Your task to perform on an android device: What's on my calendar for the rest of the month? Image 0: 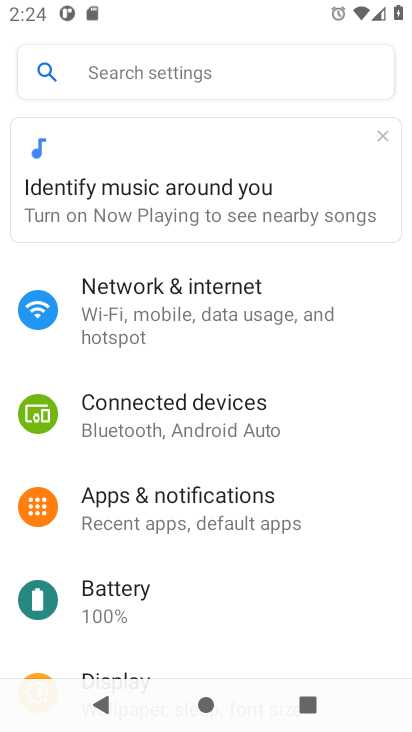
Step 0: press home button
Your task to perform on an android device: What's on my calendar for the rest of the month? Image 1: 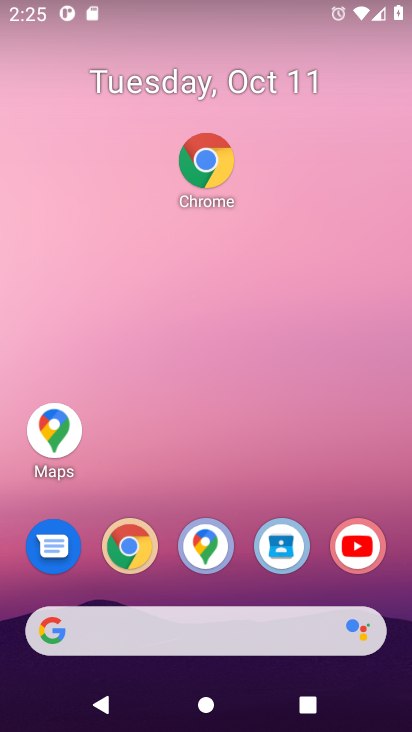
Step 1: drag from (166, 621) to (203, 277)
Your task to perform on an android device: What's on my calendar for the rest of the month? Image 2: 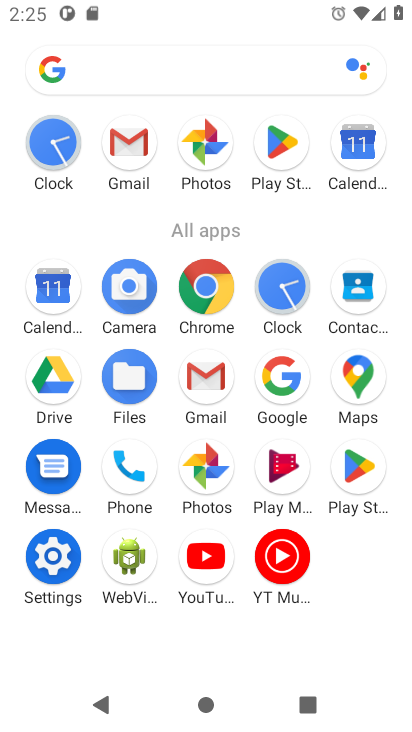
Step 2: click (45, 297)
Your task to perform on an android device: What's on my calendar for the rest of the month? Image 3: 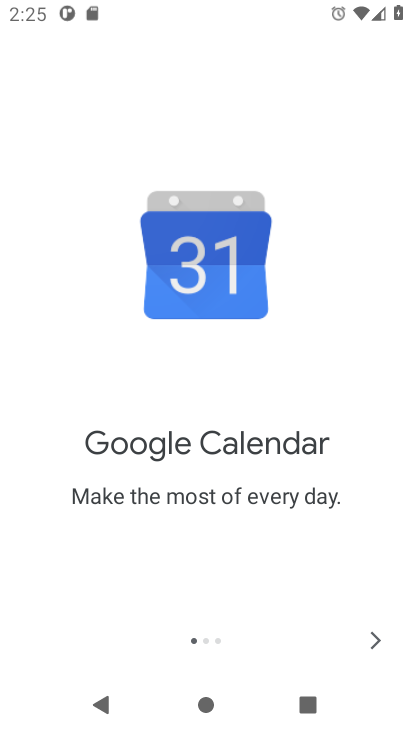
Step 3: click (374, 643)
Your task to perform on an android device: What's on my calendar for the rest of the month? Image 4: 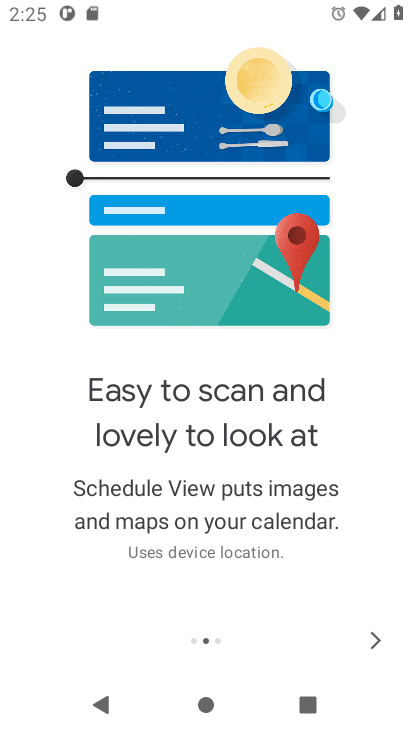
Step 4: click (374, 643)
Your task to perform on an android device: What's on my calendar for the rest of the month? Image 5: 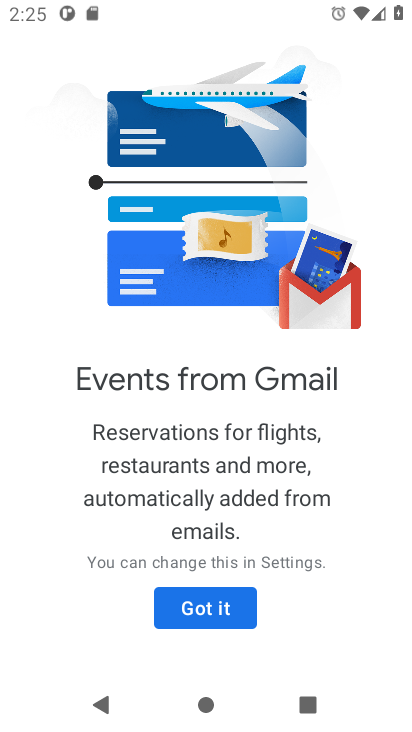
Step 5: click (228, 616)
Your task to perform on an android device: What's on my calendar for the rest of the month? Image 6: 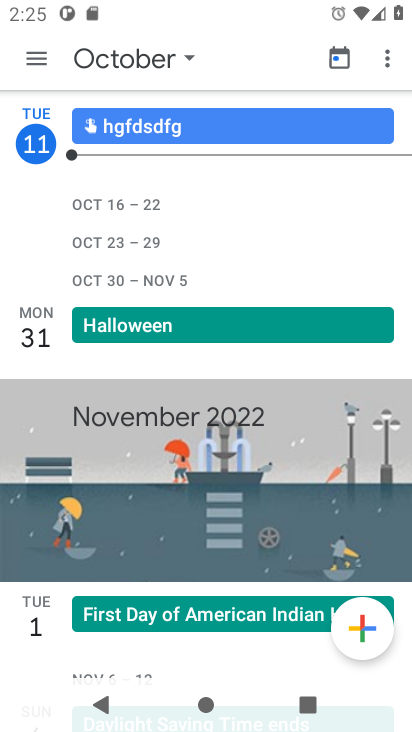
Step 6: click (331, 59)
Your task to perform on an android device: What's on my calendar for the rest of the month? Image 7: 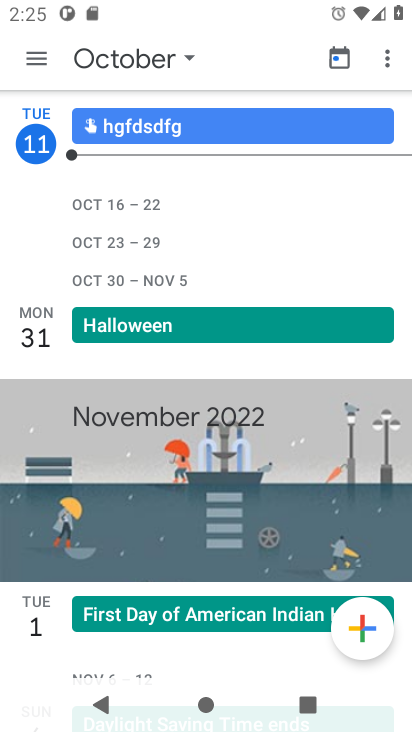
Step 7: task complete